Your task to perform on an android device: set the timer Image 0: 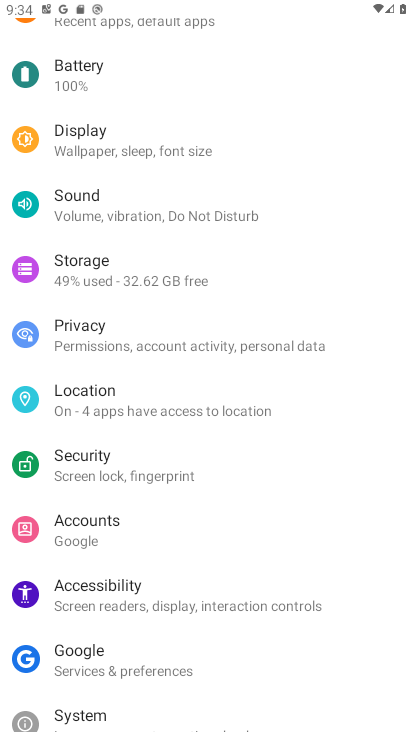
Step 0: press back button
Your task to perform on an android device: set the timer Image 1: 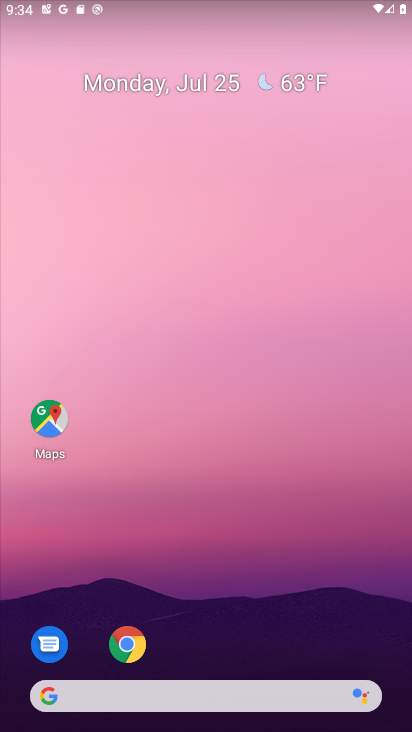
Step 1: drag from (206, 368) to (206, 63)
Your task to perform on an android device: set the timer Image 2: 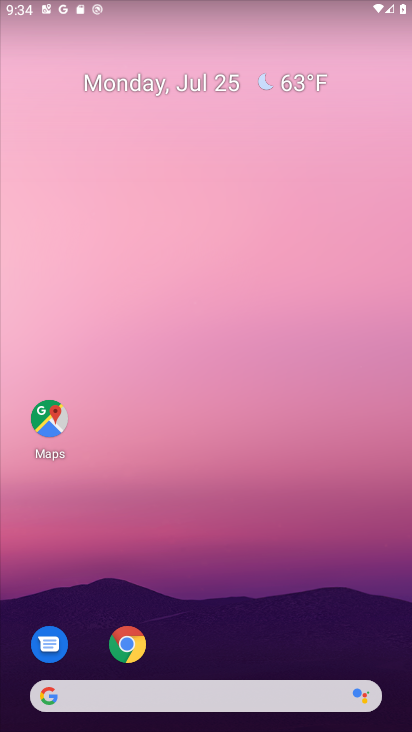
Step 2: drag from (212, 546) to (211, 150)
Your task to perform on an android device: set the timer Image 3: 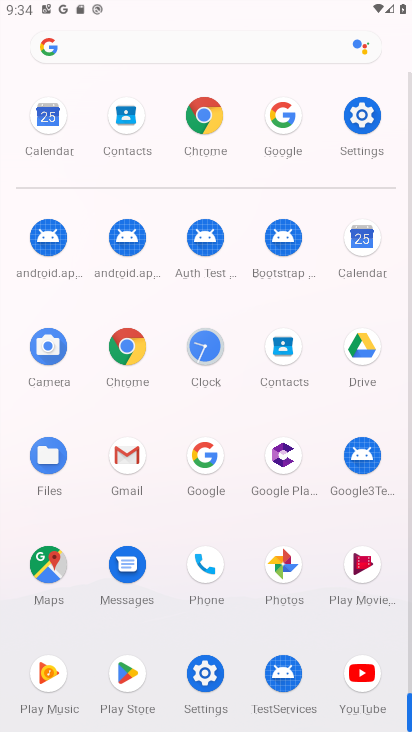
Step 3: drag from (274, 506) to (234, 169)
Your task to perform on an android device: set the timer Image 4: 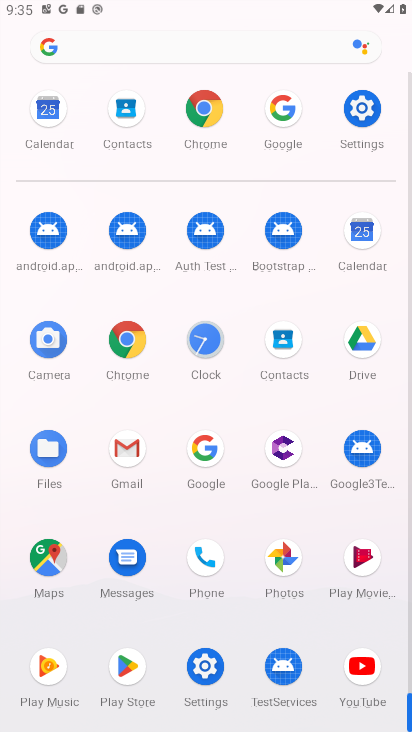
Step 4: click (201, 338)
Your task to perform on an android device: set the timer Image 5: 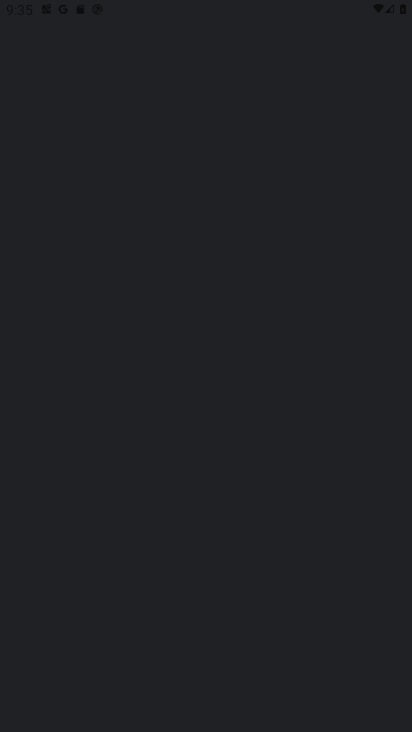
Step 5: click (207, 337)
Your task to perform on an android device: set the timer Image 6: 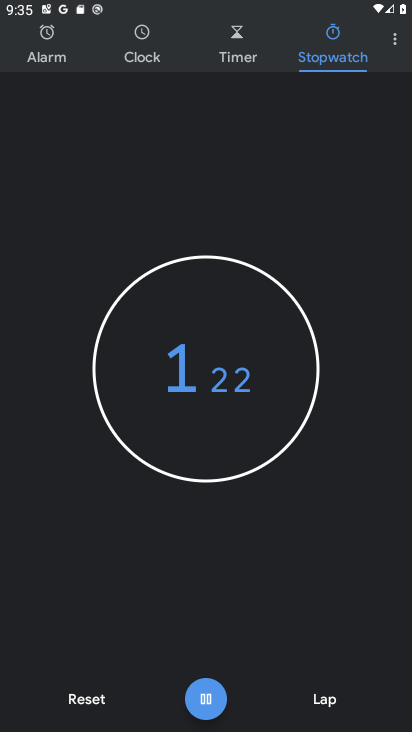
Step 6: click (239, 44)
Your task to perform on an android device: set the timer Image 7: 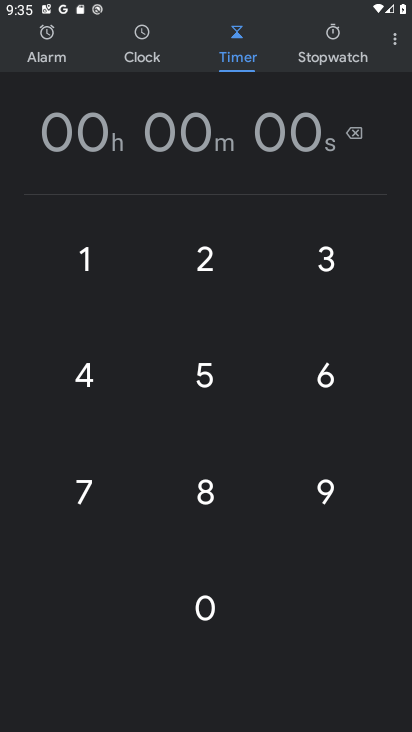
Step 7: click (216, 373)
Your task to perform on an android device: set the timer Image 8: 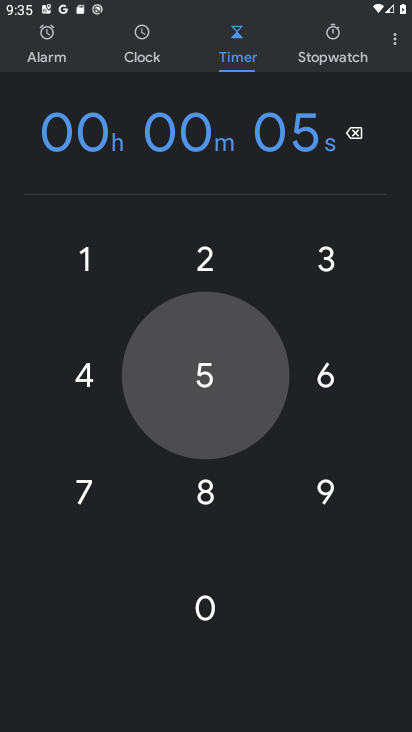
Step 8: click (215, 372)
Your task to perform on an android device: set the timer Image 9: 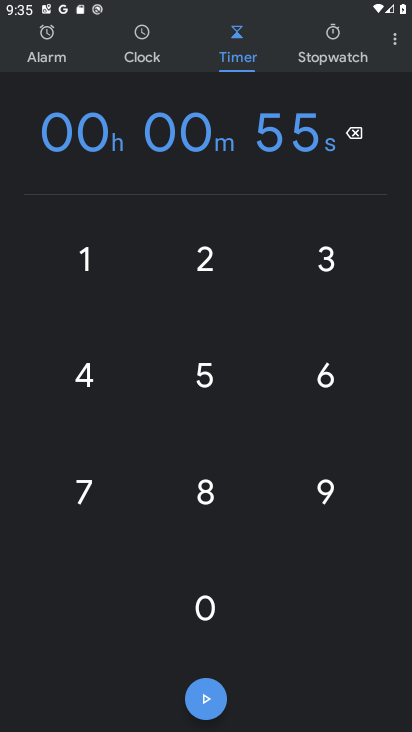
Step 9: click (207, 698)
Your task to perform on an android device: set the timer Image 10: 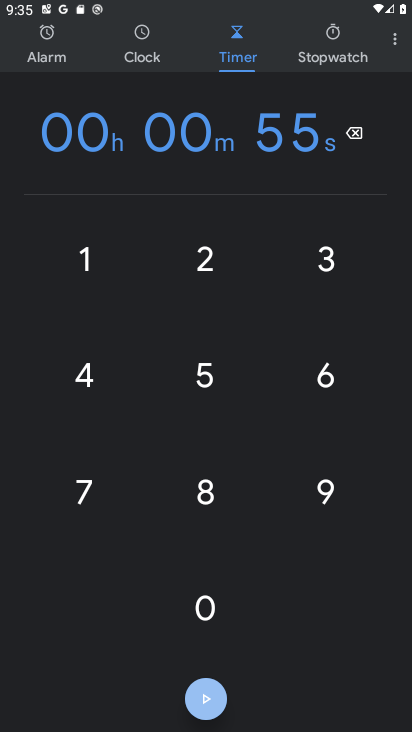
Step 10: click (207, 698)
Your task to perform on an android device: set the timer Image 11: 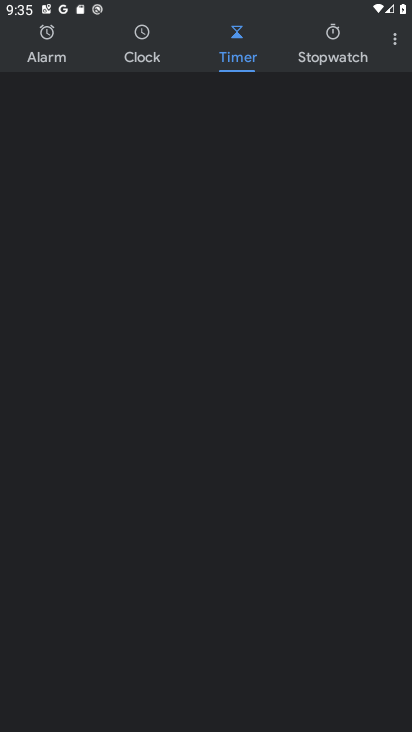
Step 11: click (208, 697)
Your task to perform on an android device: set the timer Image 12: 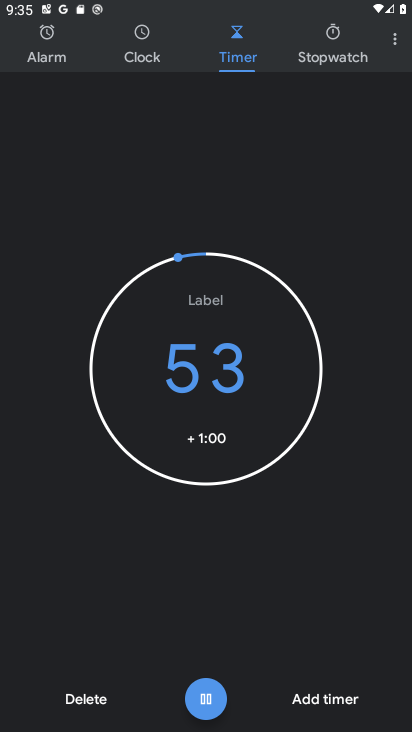
Step 12: click (204, 693)
Your task to perform on an android device: set the timer Image 13: 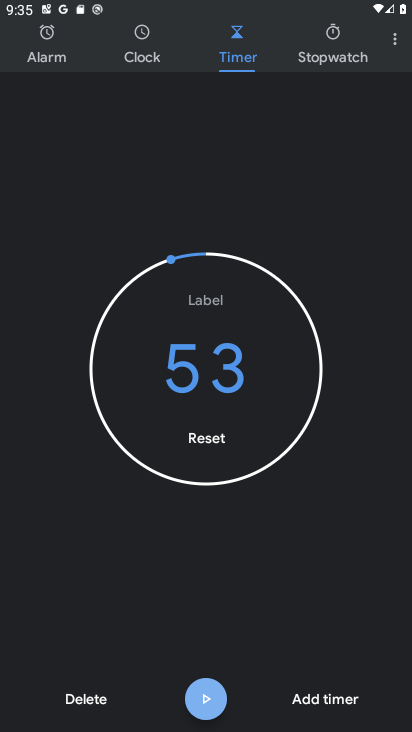
Step 13: click (205, 691)
Your task to perform on an android device: set the timer Image 14: 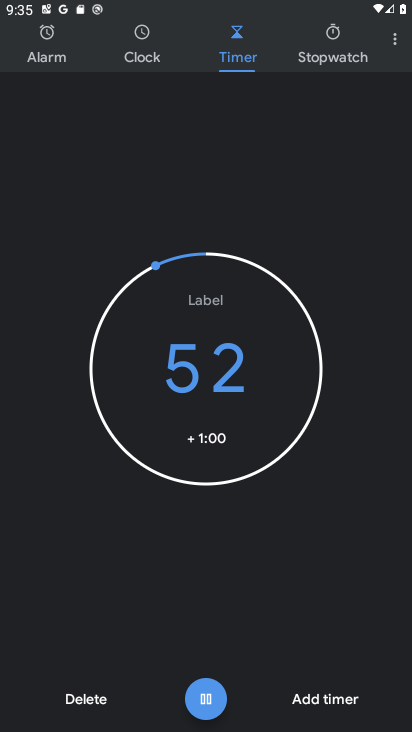
Step 14: click (204, 694)
Your task to perform on an android device: set the timer Image 15: 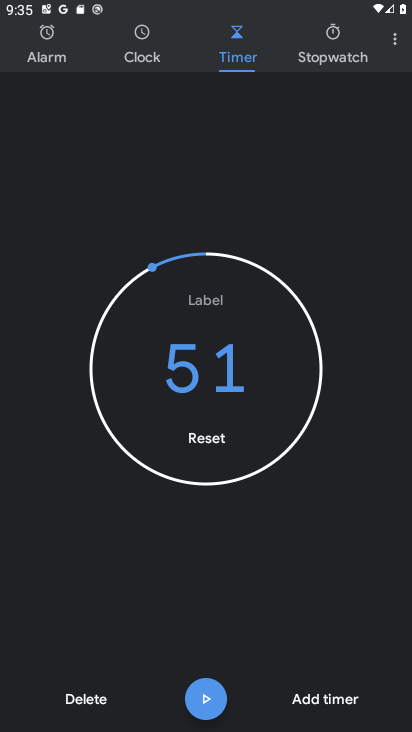
Step 15: task complete